Your task to perform on an android device: Go to CNN.com Image 0: 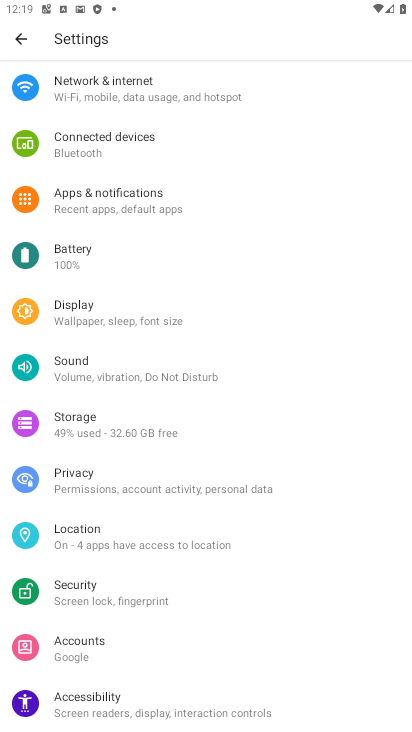
Step 0: press home button
Your task to perform on an android device: Go to CNN.com Image 1: 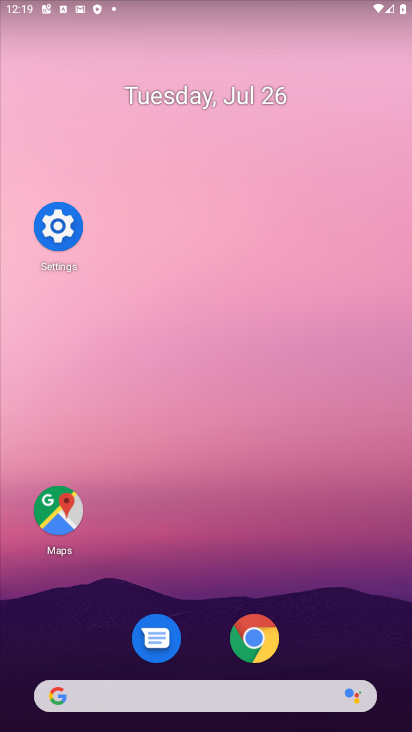
Step 1: click (228, 620)
Your task to perform on an android device: Go to CNN.com Image 2: 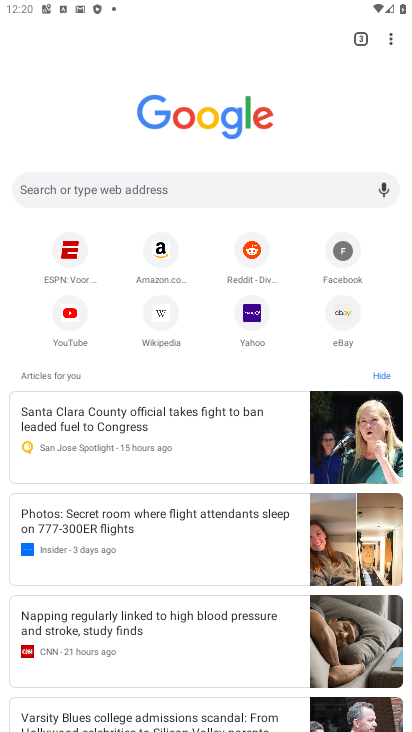
Step 2: click (189, 193)
Your task to perform on an android device: Go to CNN.com Image 3: 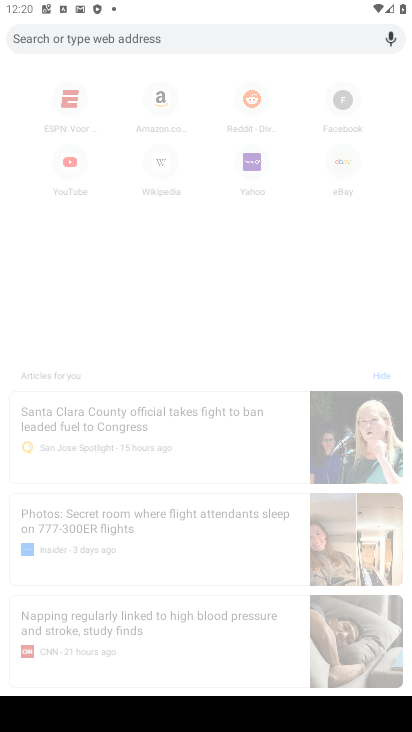
Step 3: type "cnn"
Your task to perform on an android device: Go to CNN.com Image 4: 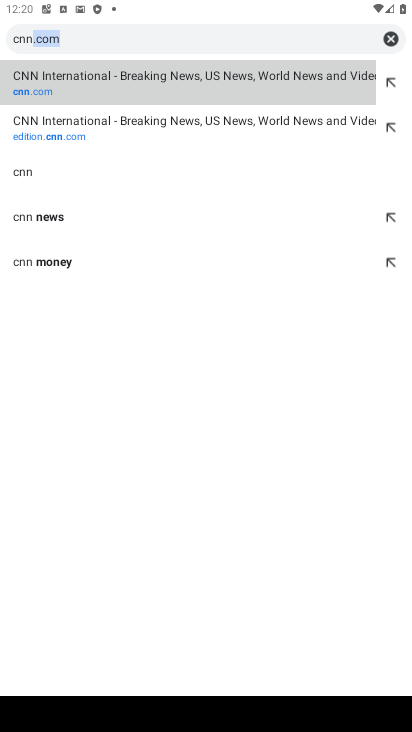
Step 4: click (76, 97)
Your task to perform on an android device: Go to CNN.com Image 5: 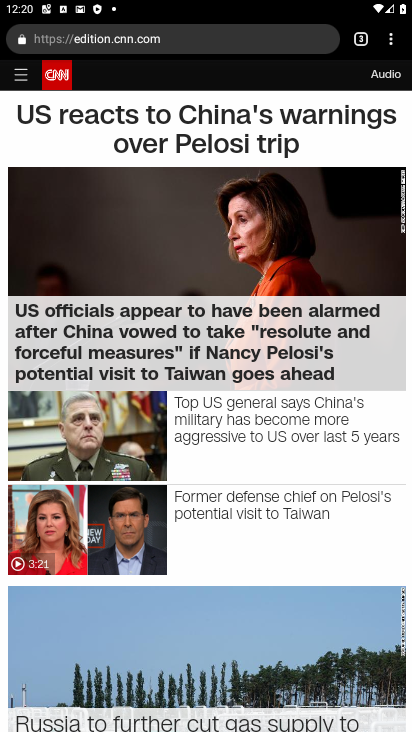
Step 5: task complete